Your task to perform on an android device: change alarm snooze length Image 0: 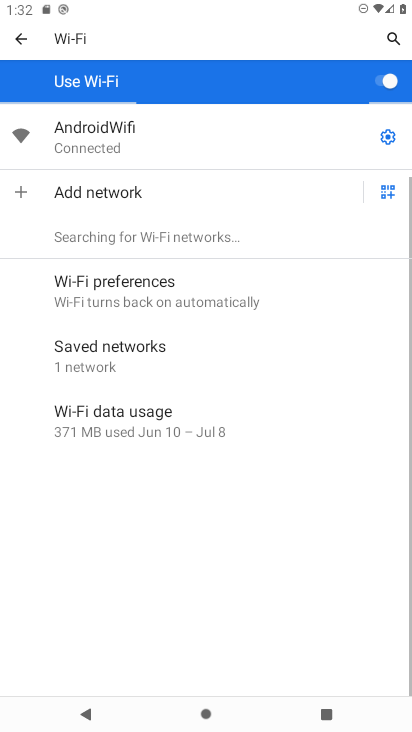
Step 0: press home button
Your task to perform on an android device: change alarm snooze length Image 1: 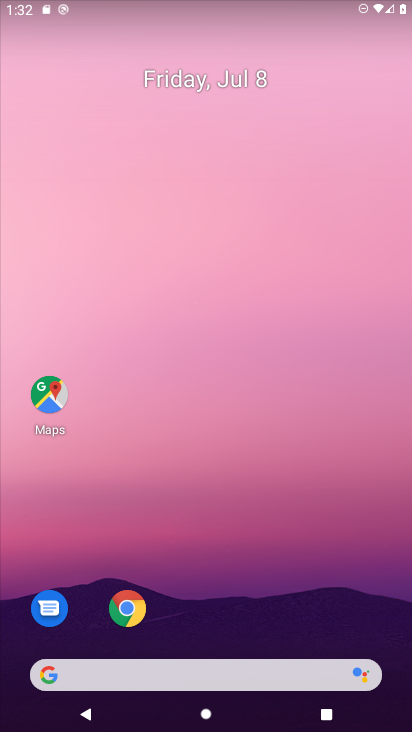
Step 1: drag from (253, 618) to (216, 125)
Your task to perform on an android device: change alarm snooze length Image 2: 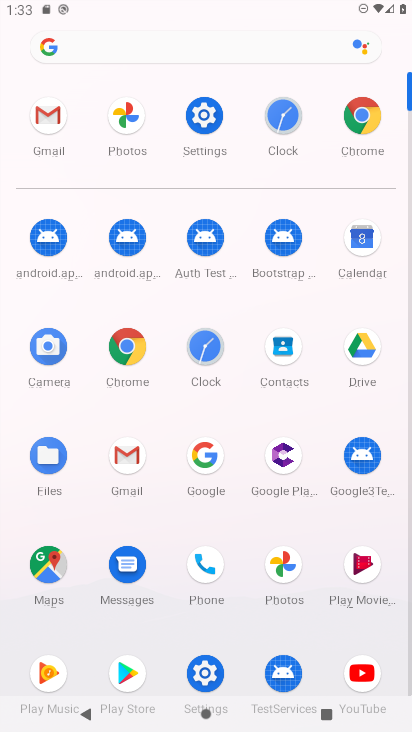
Step 2: click (25, 318)
Your task to perform on an android device: change alarm snooze length Image 3: 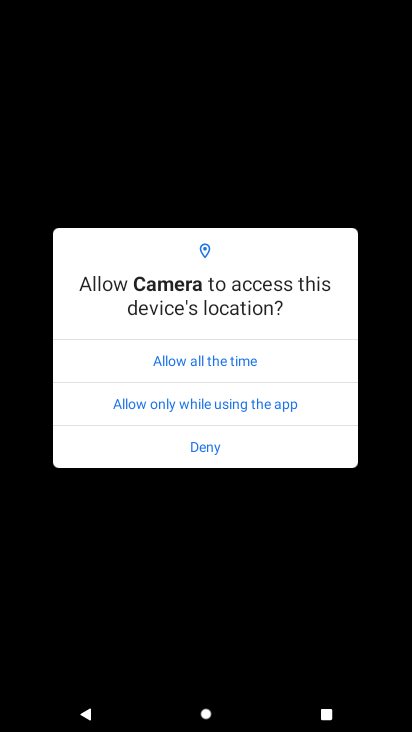
Step 3: press home button
Your task to perform on an android device: change alarm snooze length Image 4: 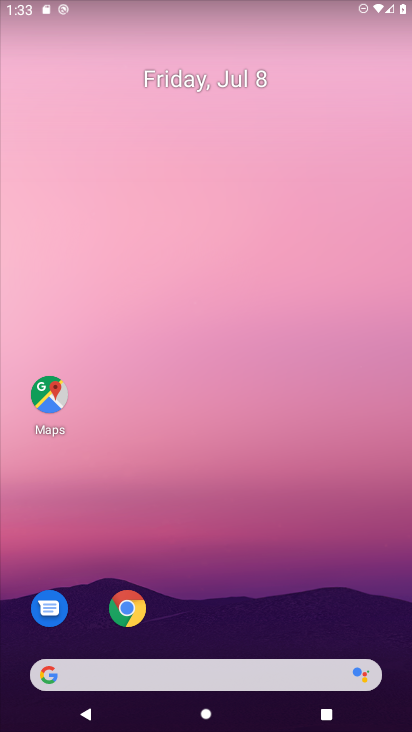
Step 4: drag from (281, 601) to (242, 188)
Your task to perform on an android device: change alarm snooze length Image 5: 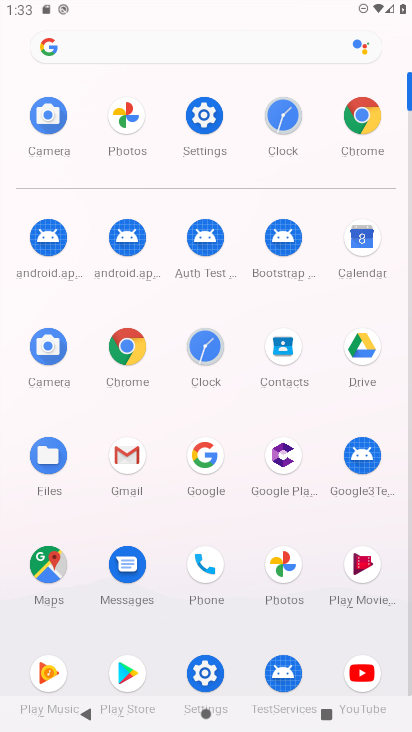
Step 5: click (289, 132)
Your task to perform on an android device: change alarm snooze length Image 6: 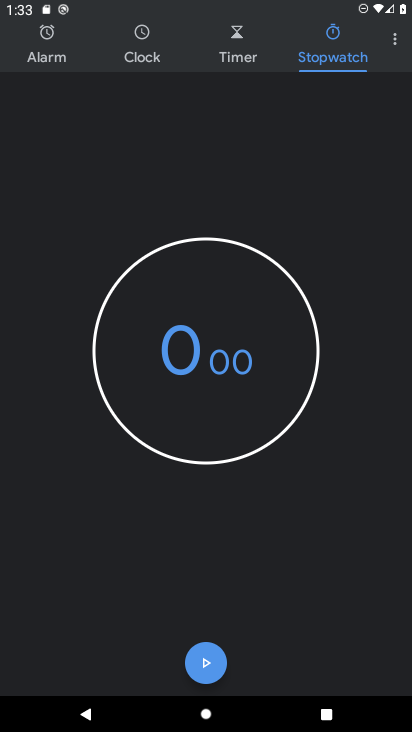
Step 6: click (385, 27)
Your task to perform on an android device: change alarm snooze length Image 7: 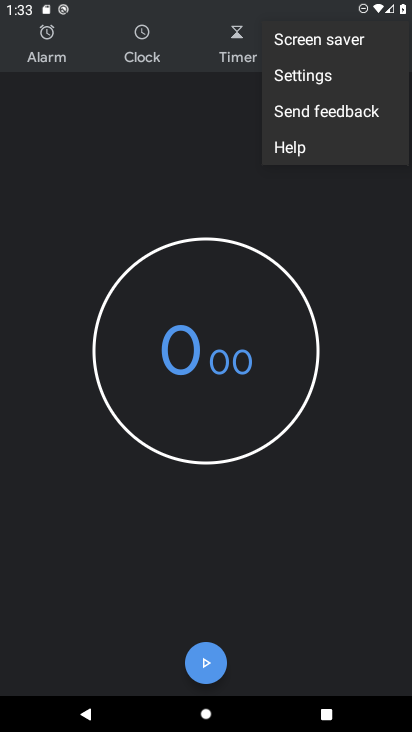
Step 7: click (314, 73)
Your task to perform on an android device: change alarm snooze length Image 8: 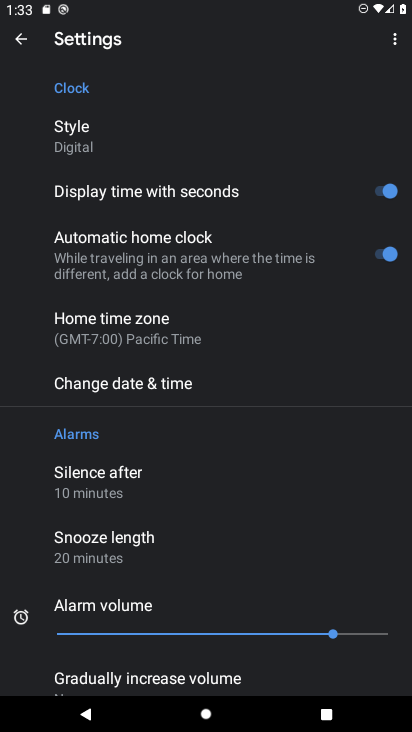
Step 8: click (182, 534)
Your task to perform on an android device: change alarm snooze length Image 9: 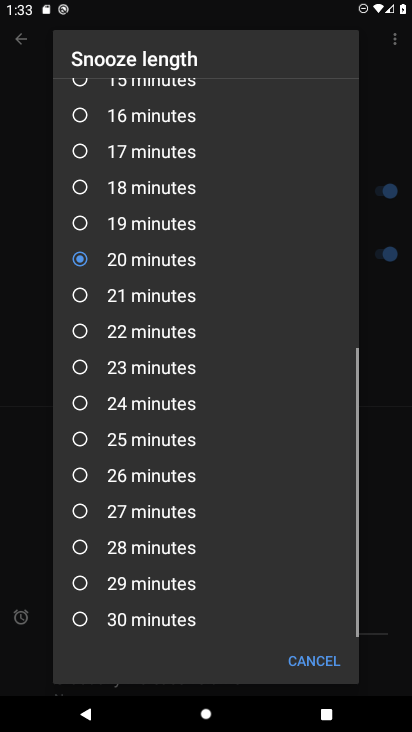
Step 9: click (167, 301)
Your task to perform on an android device: change alarm snooze length Image 10: 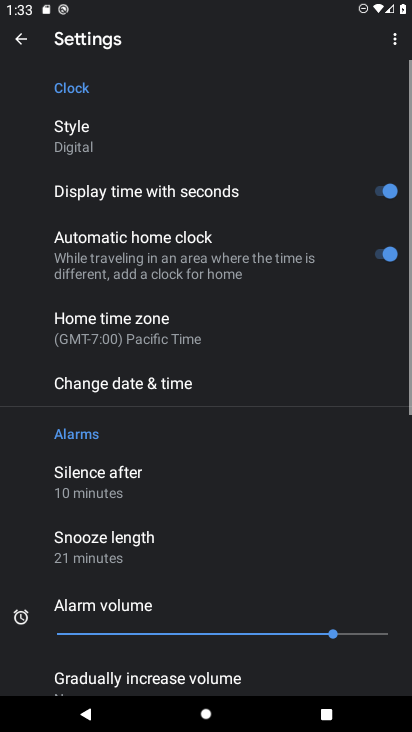
Step 10: task complete